Your task to perform on an android device: Find coffee shops on Maps Image 0: 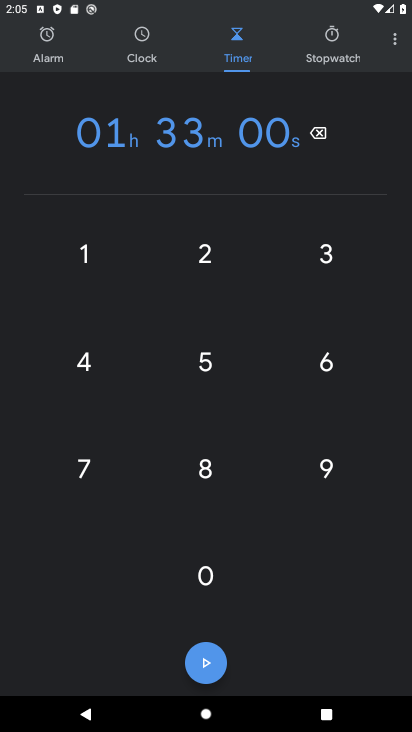
Step 0: press home button
Your task to perform on an android device: Find coffee shops on Maps Image 1: 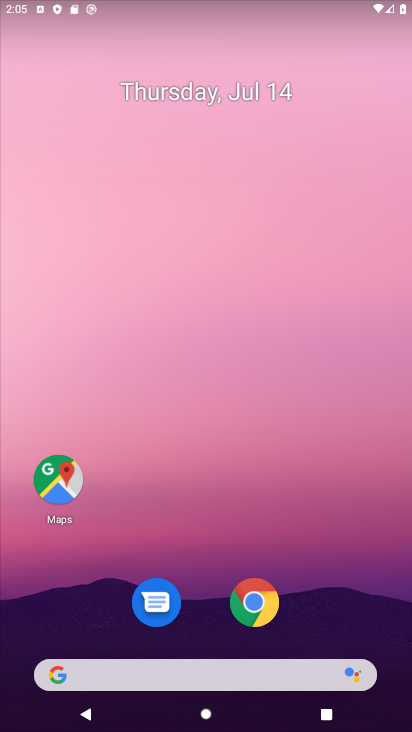
Step 1: click (59, 484)
Your task to perform on an android device: Find coffee shops on Maps Image 2: 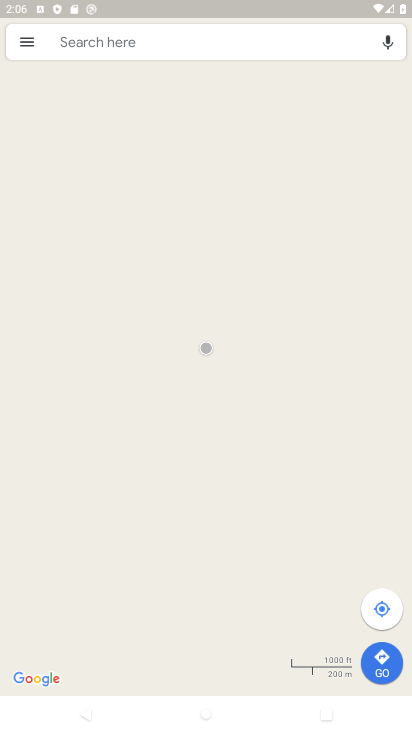
Step 2: click (117, 43)
Your task to perform on an android device: Find coffee shops on Maps Image 3: 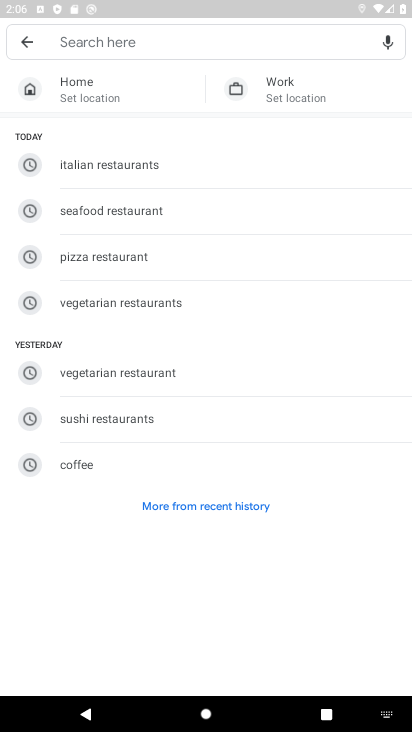
Step 3: type "coffee shops"
Your task to perform on an android device: Find coffee shops on Maps Image 4: 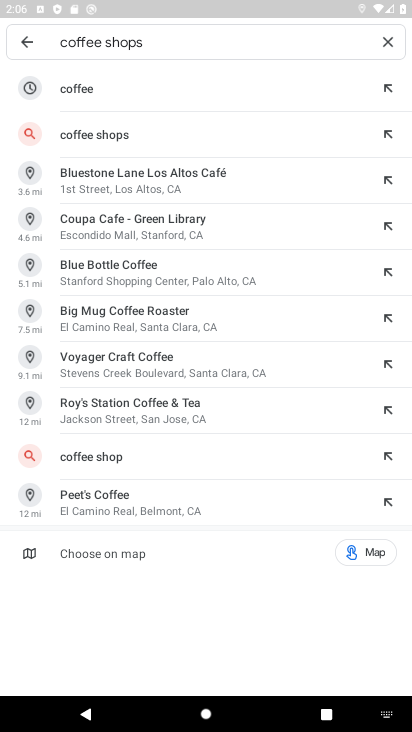
Step 4: click (114, 143)
Your task to perform on an android device: Find coffee shops on Maps Image 5: 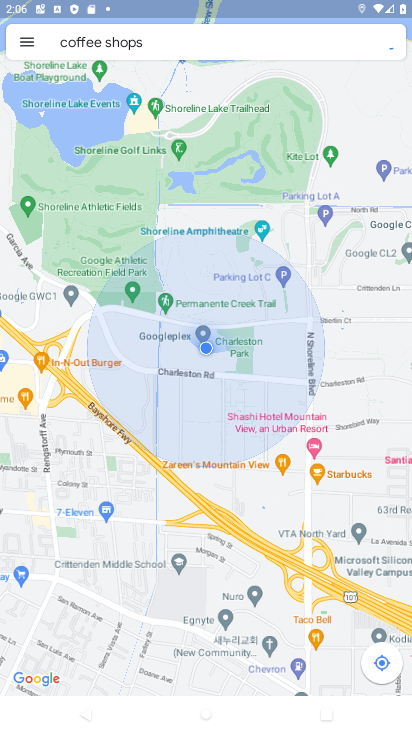
Step 5: drag from (196, 309) to (207, 149)
Your task to perform on an android device: Find coffee shops on Maps Image 6: 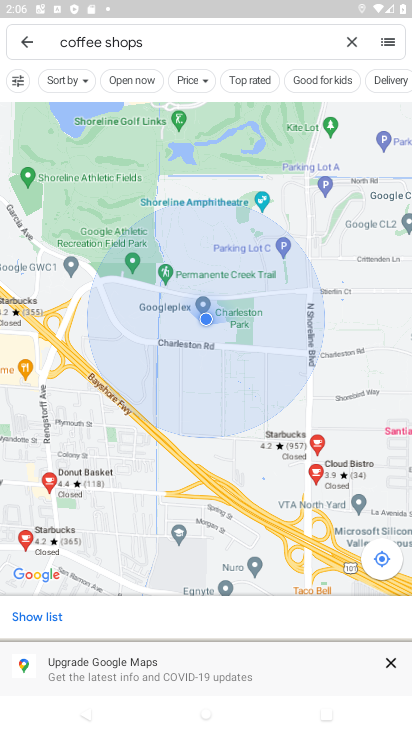
Step 6: click (177, 282)
Your task to perform on an android device: Find coffee shops on Maps Image 7: 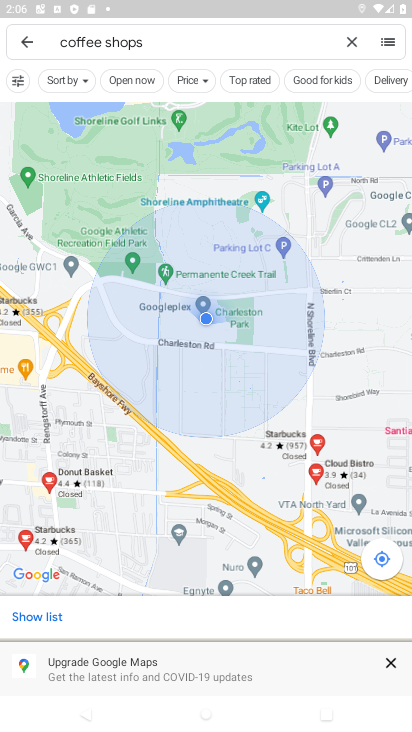
Step 7: click (25, 621)
Your task to perform on an android device: Find coffee shops on Maps Image 8: 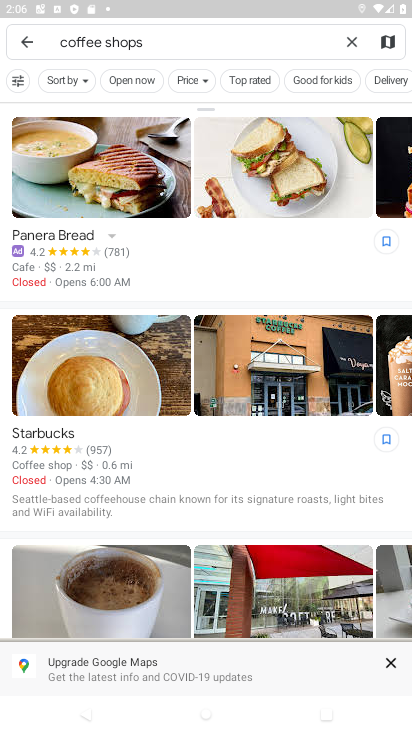
Step 8: task complete